Your task to perform on an android device: Open Chrome and go to the settings page Image 0: 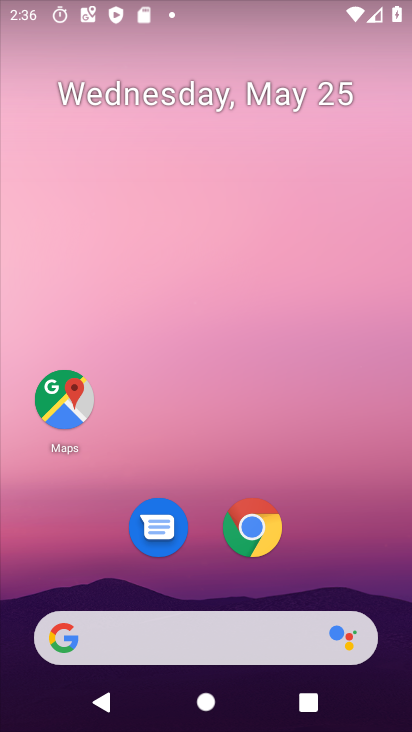
Step 0: drag from (186, 569) to (235, 84)
Your task to perform on an android device: Open Chrome and go to the settings page Image 1: 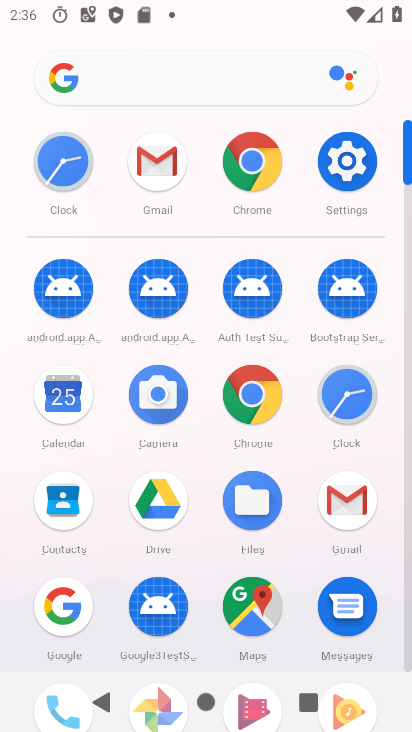
Step 1: click (258, 385)
Your task to perform on an android device: Open Chrome and go to the settings page Image 2: 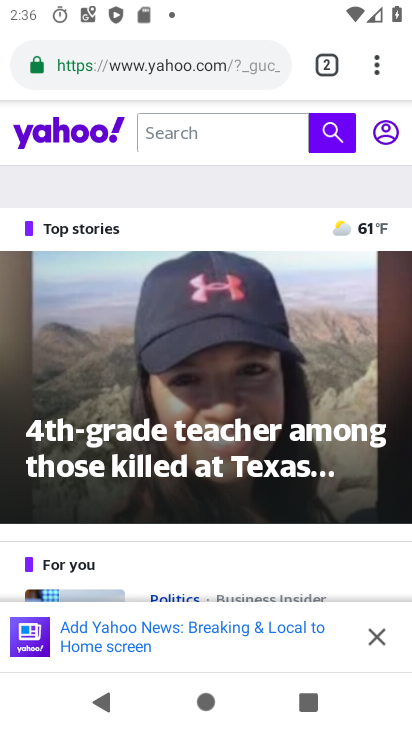
Step 2: click (374, 66)
Your task to perform on an android device: Open Chrome and go to the settings page Image 3: 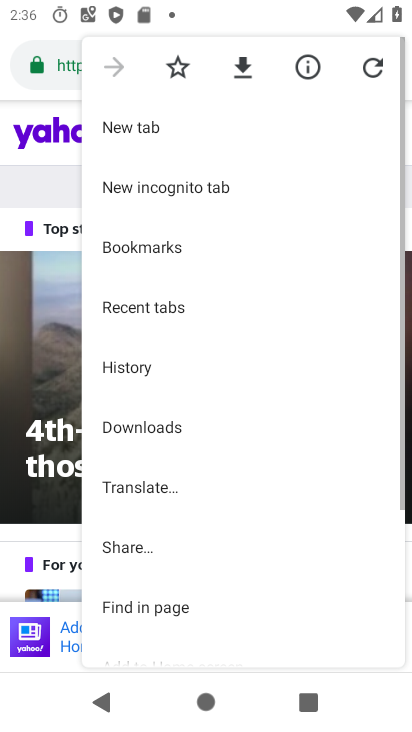
Step 3: drag from (212, 568) to (314, 111)
Your task to perform on an android device: Open Chrome and go to the settings page Image 4: 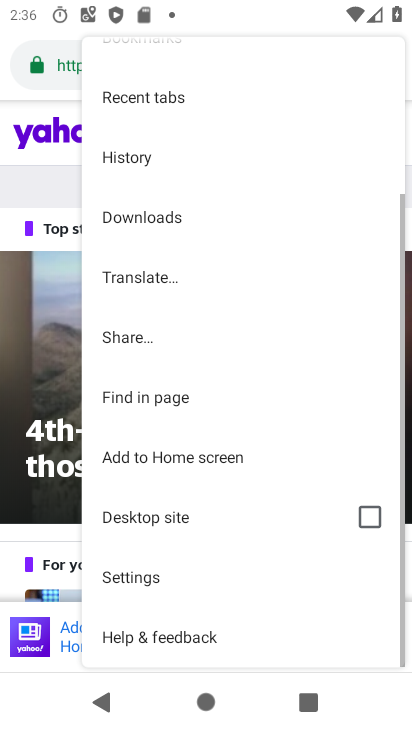
Step 4: click (165, 589)
Your task to perform on an android device: Open Chrome and go to the settings page Image 5: 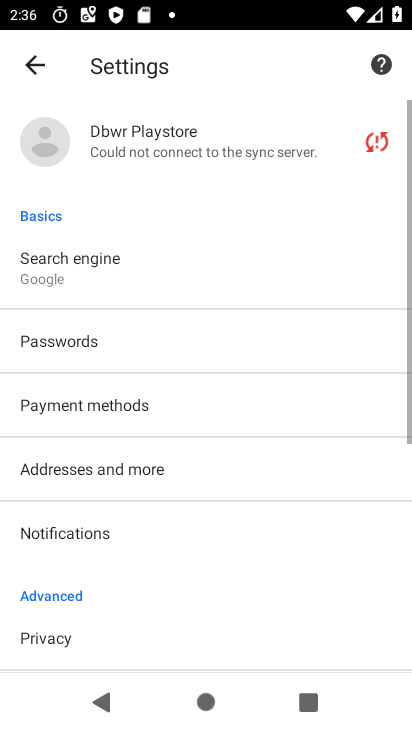
Step 5: task complete